Your task to perform on an android device: Go to network settings Image 0: 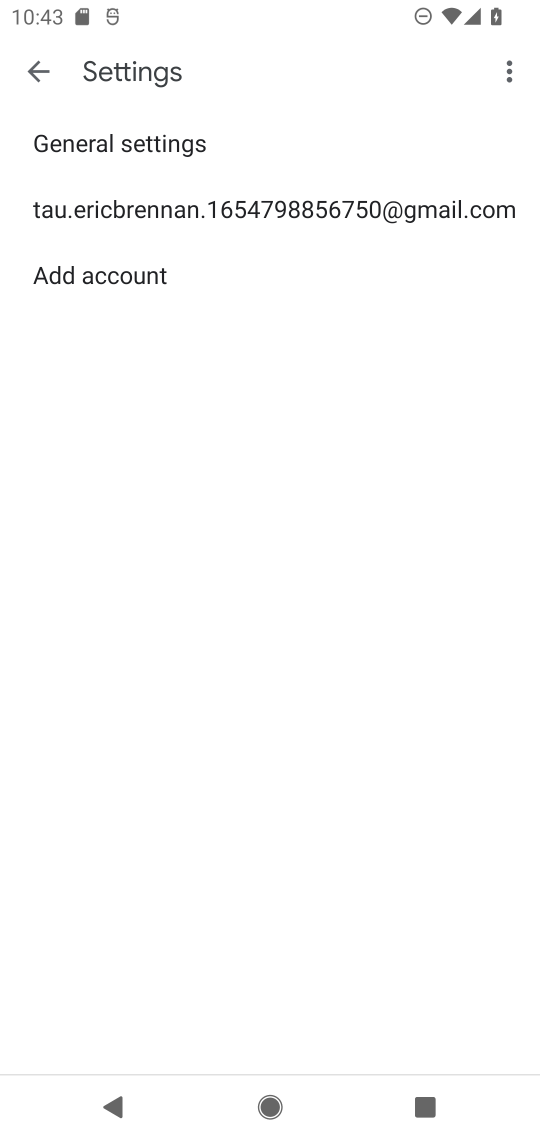
Step 0: press home button
Your task to perform on an android device: Go to network settings Image 1: 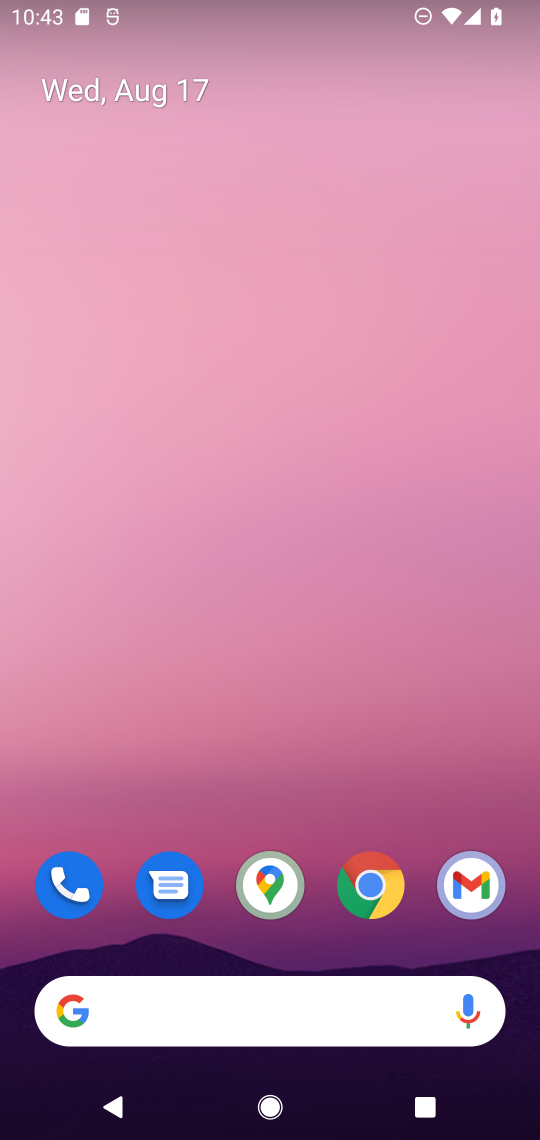
Step 1: drag from (423, 940) to (379, 194)
Your task to perform on an android device: Go to network settings Image 2: 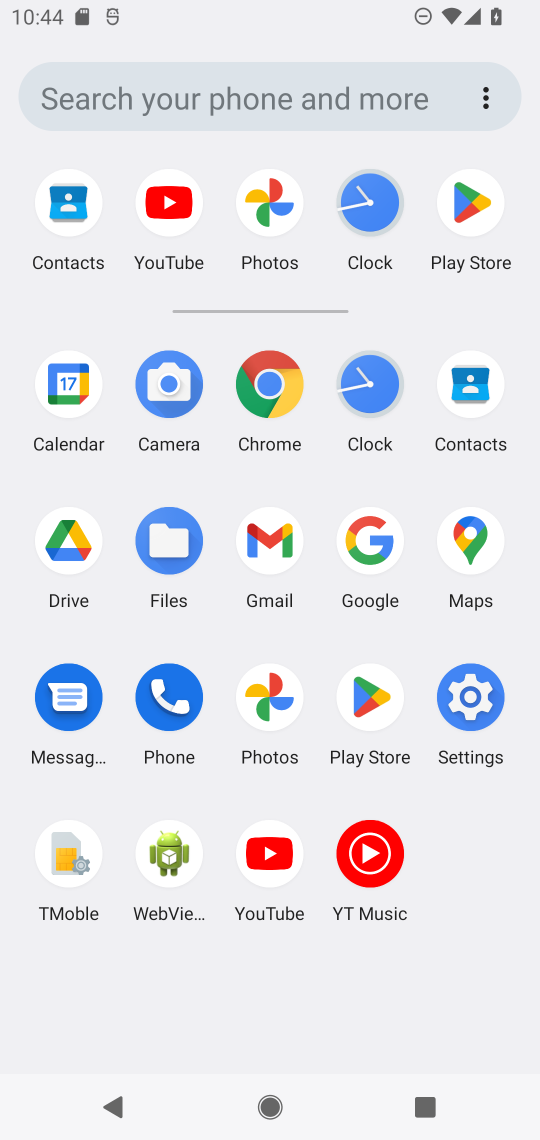
Step 2: click (473, 701)
Your task to perform on an android device: Go to network settings Image 3: 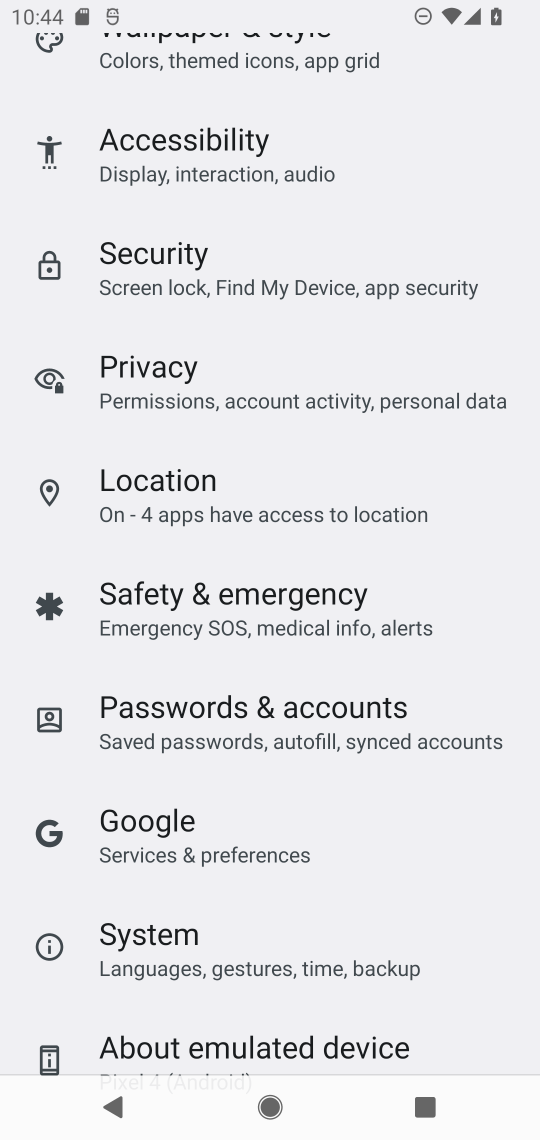
Step 3: drag from (428, 190) to (438, 766)
Your task to perform on an android device: Go to network settings Image 4: 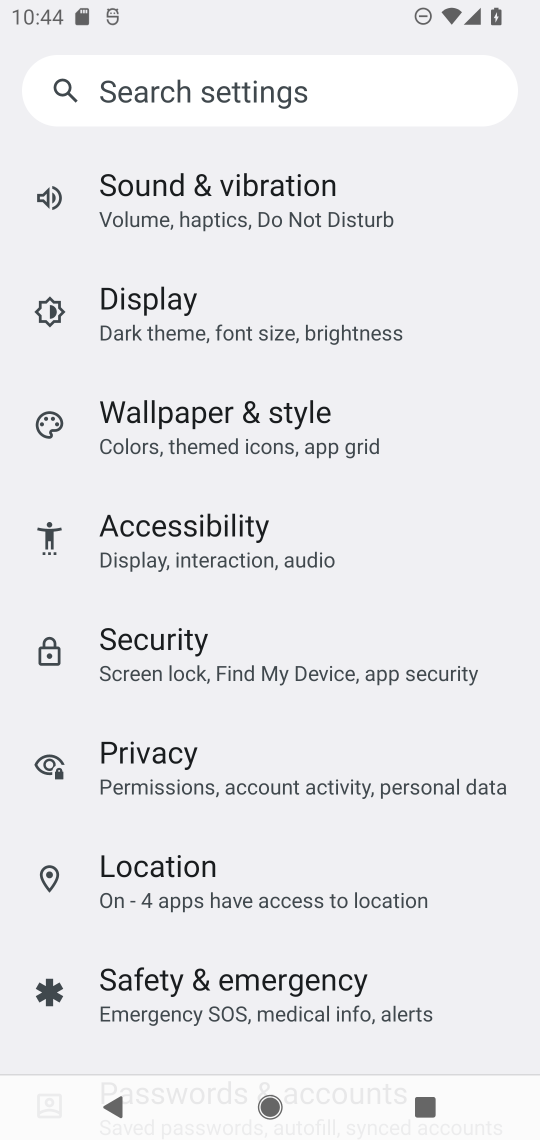
Step 4: drag from (447, 248) to (441, 699)
Your task to perform on an android device: Go to network settings Image 5: 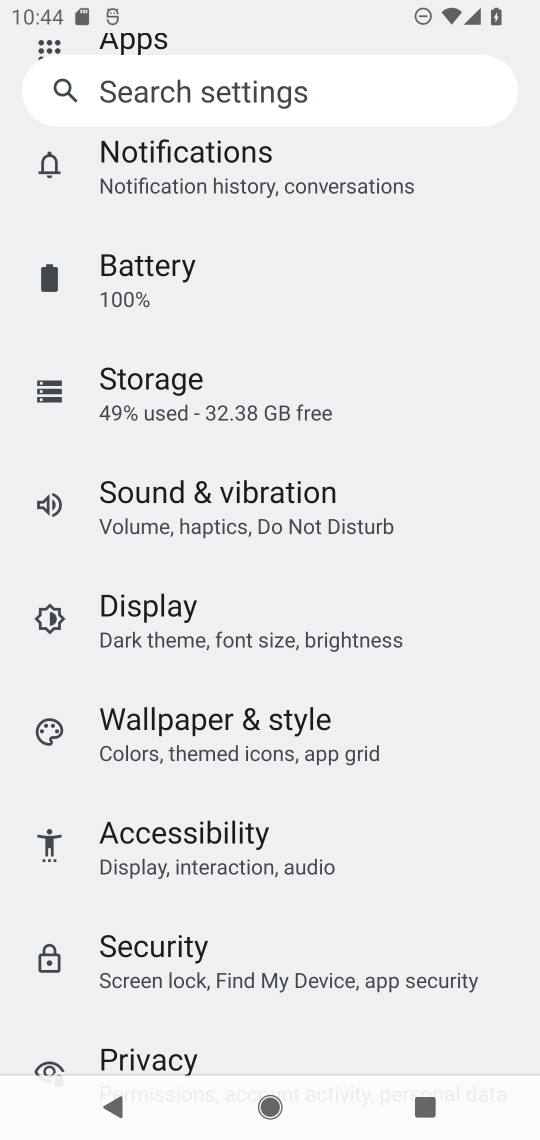
Step 5: drag from (425, 270) to (407, 743)
Your task to perform on an android device: Go to network settings Image 6: 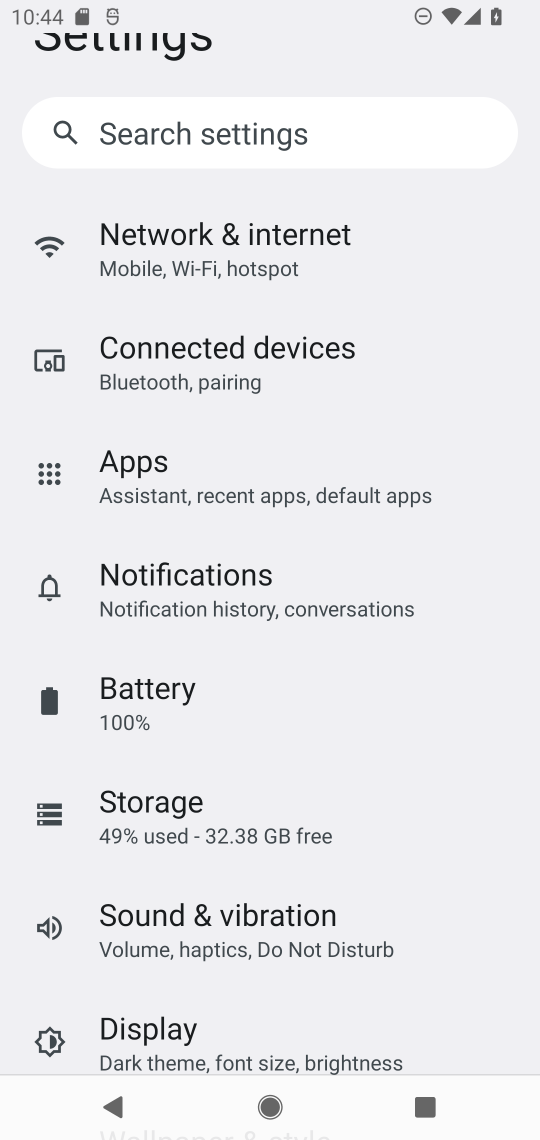
Step 6: click (163, 228)
Your task to perform on an android device: Go to network settings Image 7: 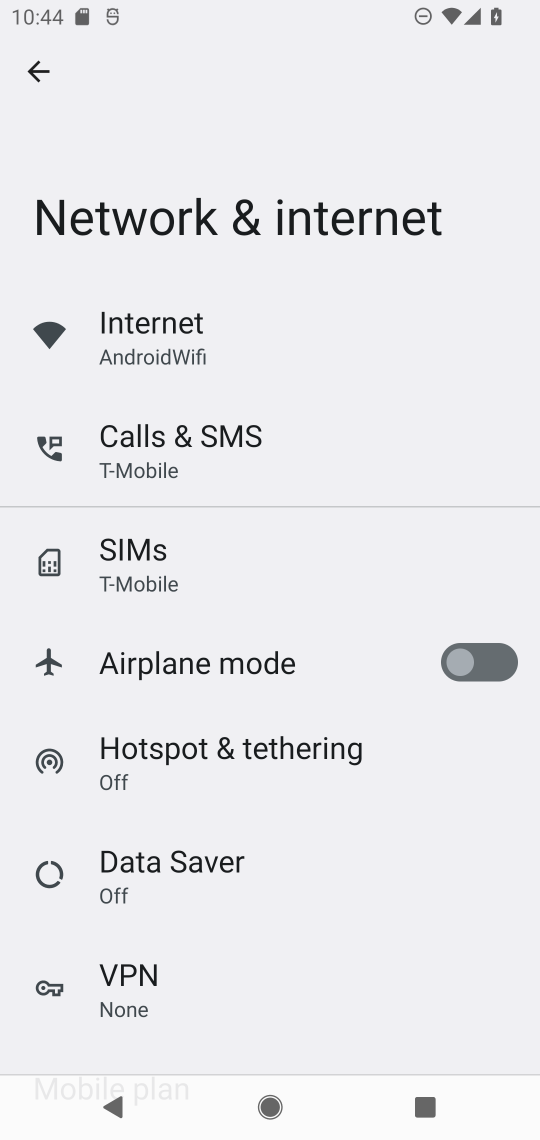
Step 7: click (149, 338)
Your task to perform on an android device: Go to network settings Image 8: 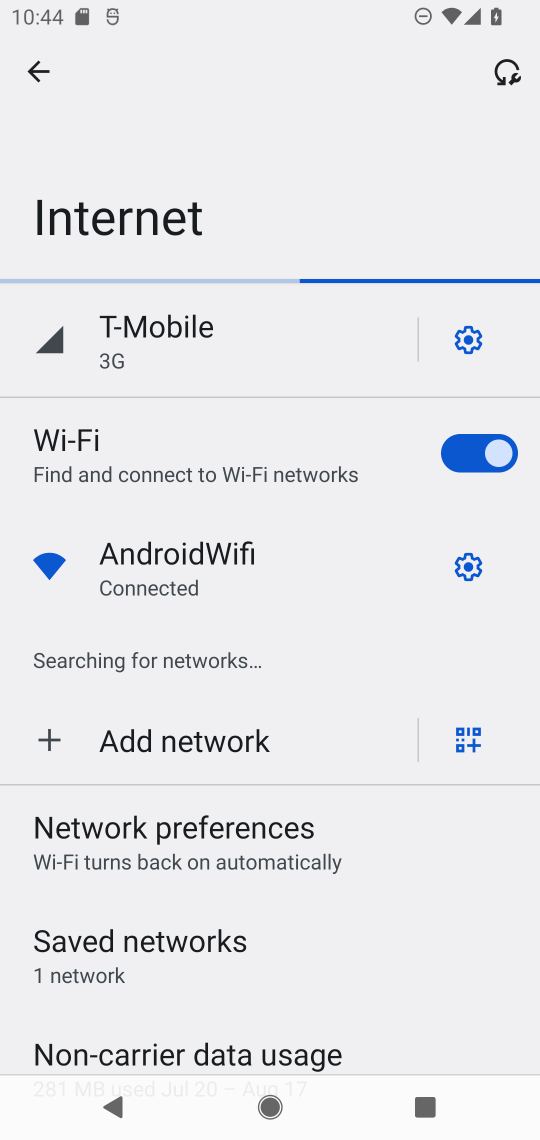
Step 8: click (467, 342)
Your task to perform on an android device: Go to network settings Image 9: 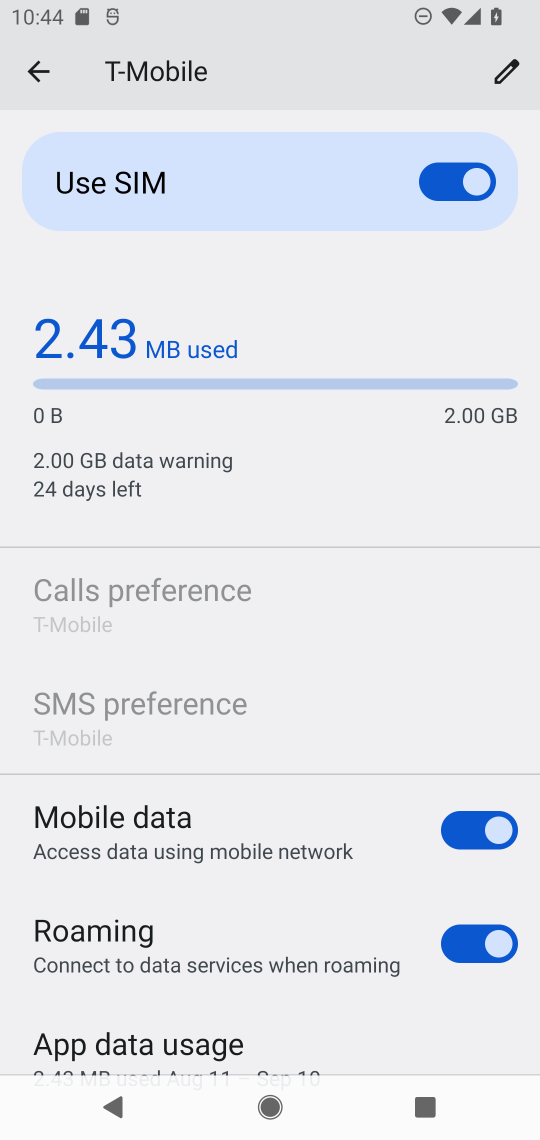
Step 9: task complete